Your task to perform on an android device: turn off location history Image 0: 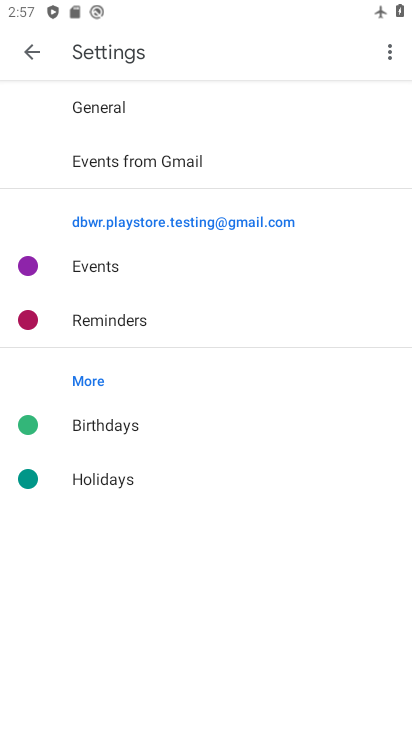
Step 0: press home button
Your task to perform on an android device: turn off location history Image 1: 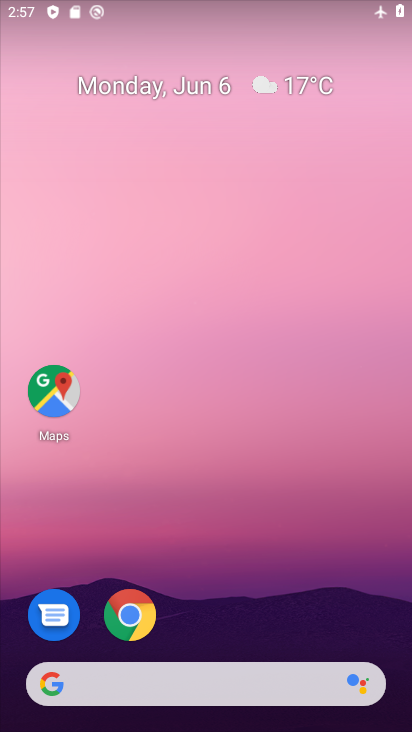
Step 1: drag from (214, 604) to (305, 109)
Your task to perform on an android device: turn off location history Image 2: 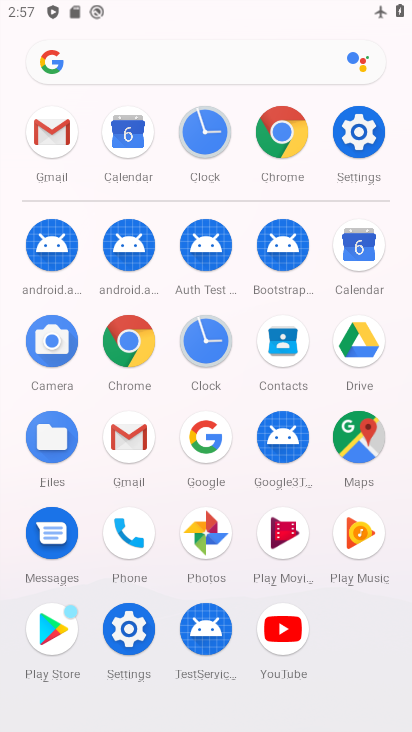
Step 2: click (364, 157)
Your task to perform on an android device: turn off location history Image 3: 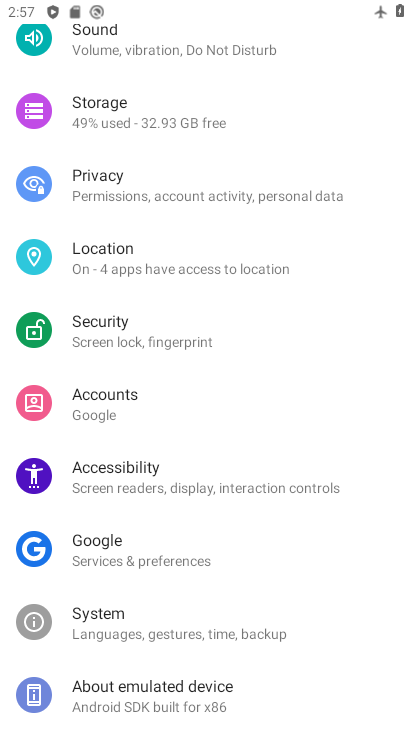
Step 3: click (130, 272)
Your task to perform on an android device: turn off location history Image 4: 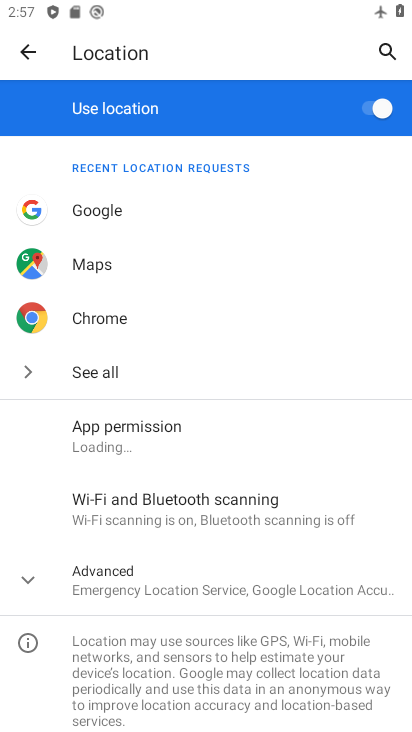
Step 4: click (161, 574)
Your task to perform on an android device: turn off location history Image 5: 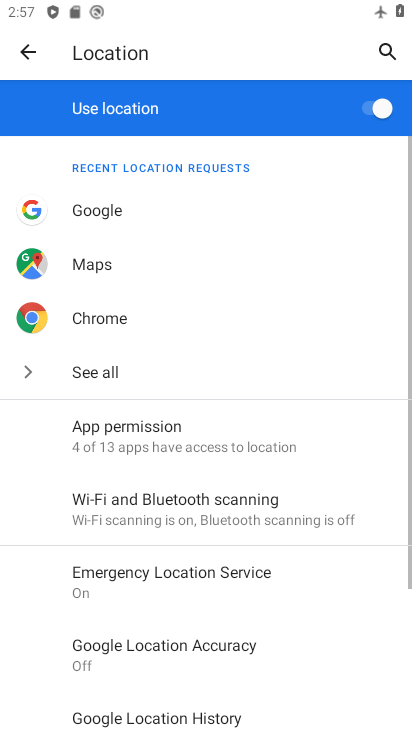
Step 5: drag from (176, 620) to (261, 320)
Your task to perform on an android device: turn off location history Image 6: 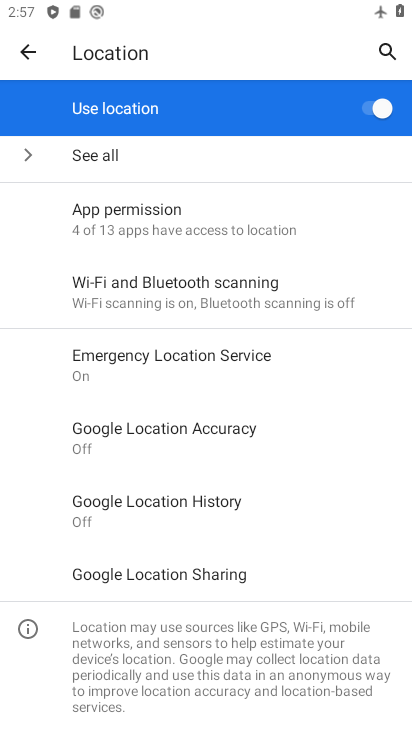
Step 6: click (194, 518)
Your task to perform on an android device: turn off location history Image 7: 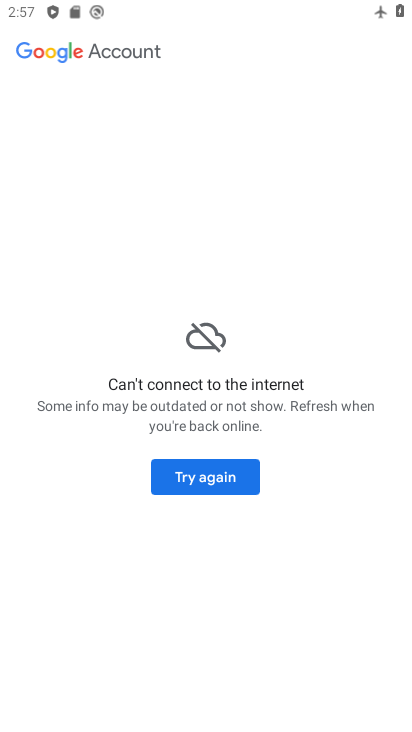
Step 7: task complete